Your task to perform on an android device: Find coffee shops on Maps Image 0: 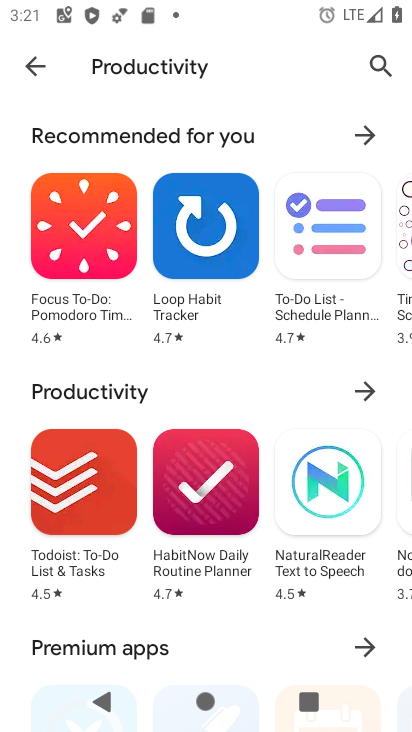
Step 0: press home button
Your task to perform on an android device: Find coffee shops on Maps Image 1: 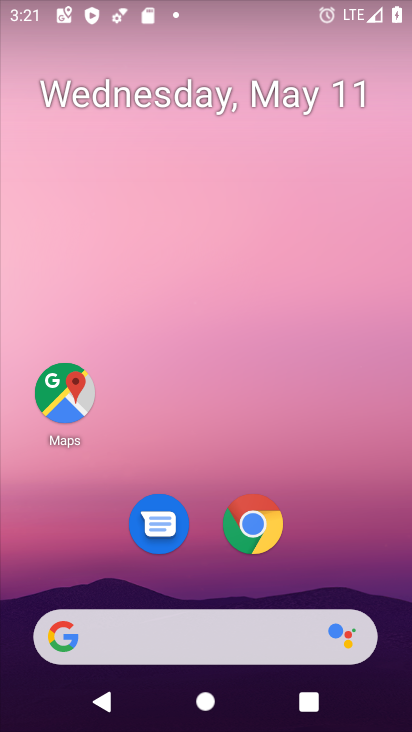
Step 1: click (72, 385)
Your task to perform on an android device: Find coffee shops on Maps Image 2: 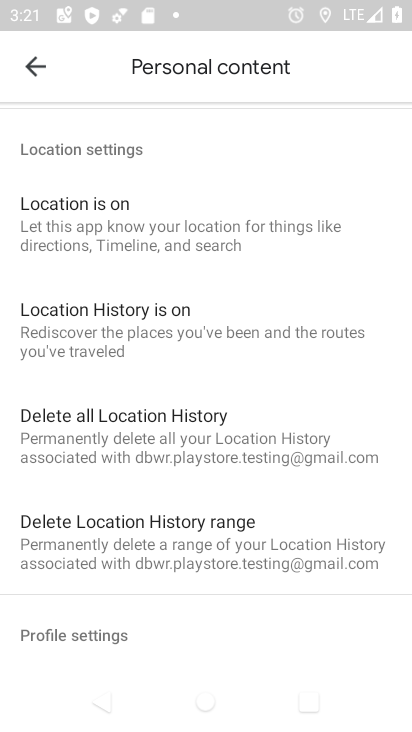
Step 2: click (35, 63)
Your task to perform on an android device: Find coffee shops on Maps Image 3: 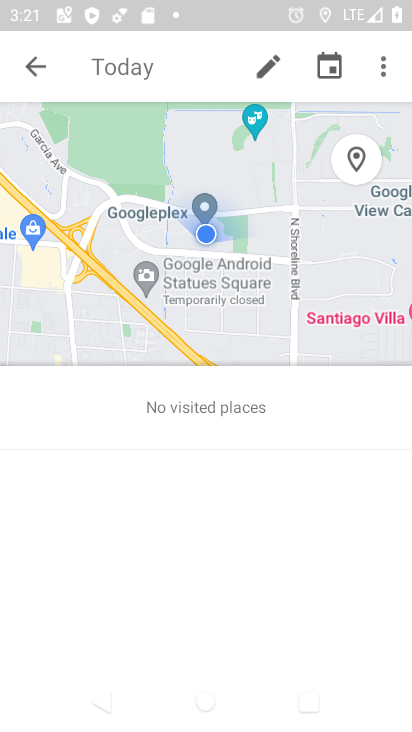
Step 3: click (35, 63)
Your task to perform on an android device: Find coffee shops on Maps Image 4: 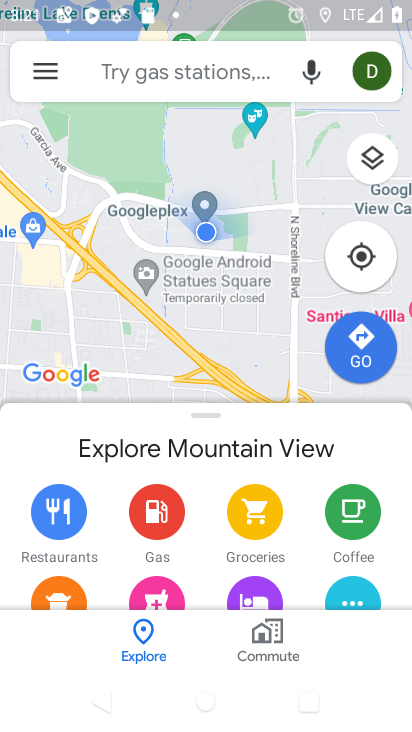
Step 4: click (94, 63)
Your task to perform on an android device: Find coffee shops on Maps Image 5: 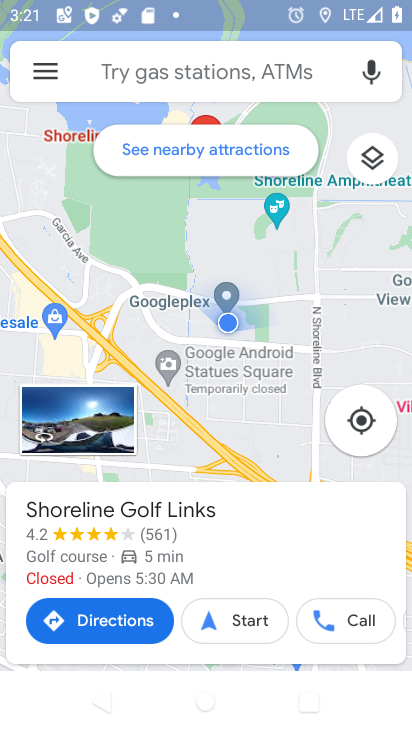
Step 5: click (118, 63)
Your task to perform on an android device: Find coffee shops on Maps Image 6: 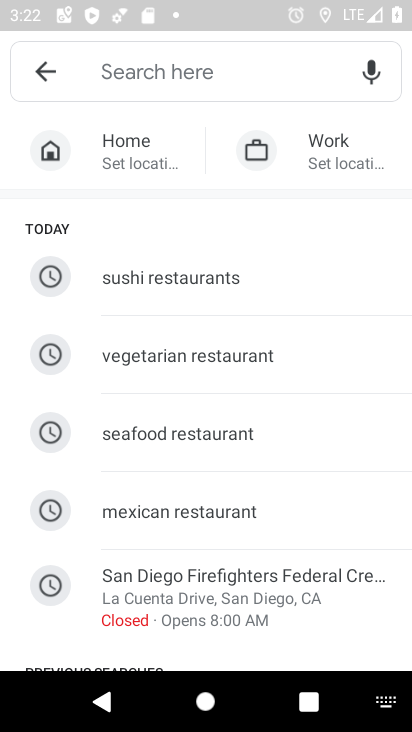
Step 6: type "coffee"
Your task to perform on an android device: Find coffee shops on Maps Image 7: 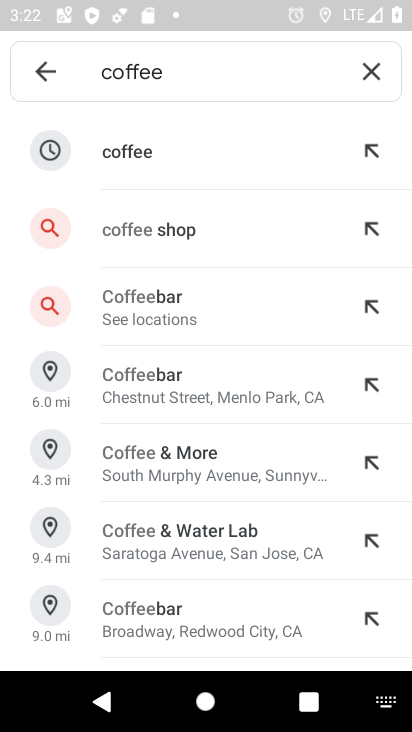
Step 7: click (181, 227)
Your task to perform on an android device: Find coffee shops on Maps Image 8: 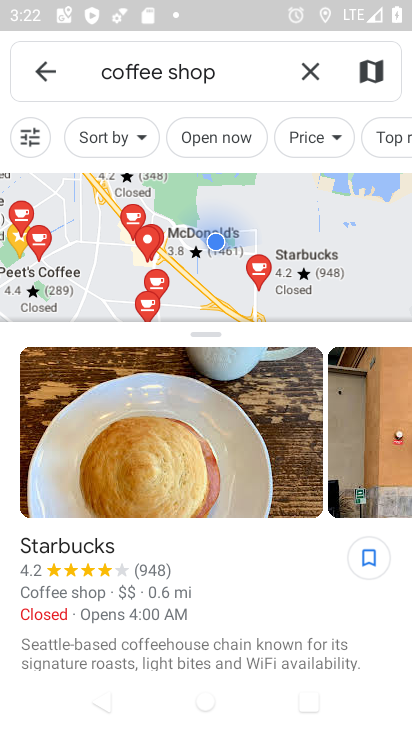
Step 8: task complete